Your task to perform on an android device: stop showing notifications on the lock screen Image 0: 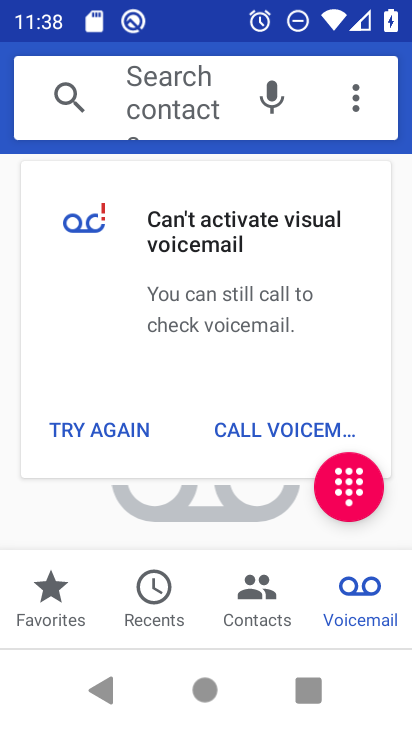
Step 0: press home button
Your task to perform on an android device: stop showing notifications on the lock screen Image 1: 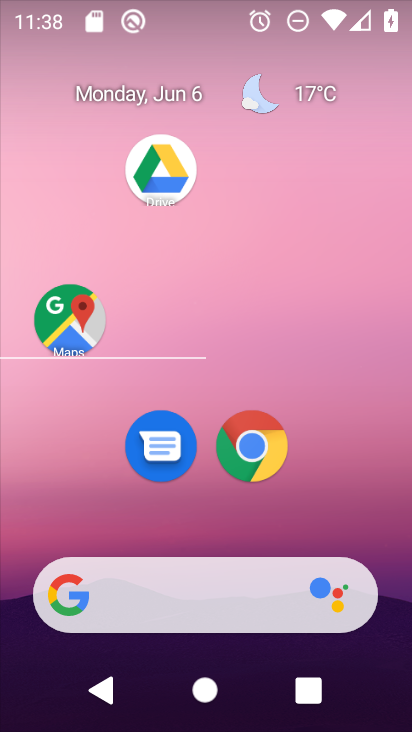
Step 1: drag from (201, 543) to (200, 93)
Your task to perform on an android device: stop showing notifications on the lock screen Image 2: 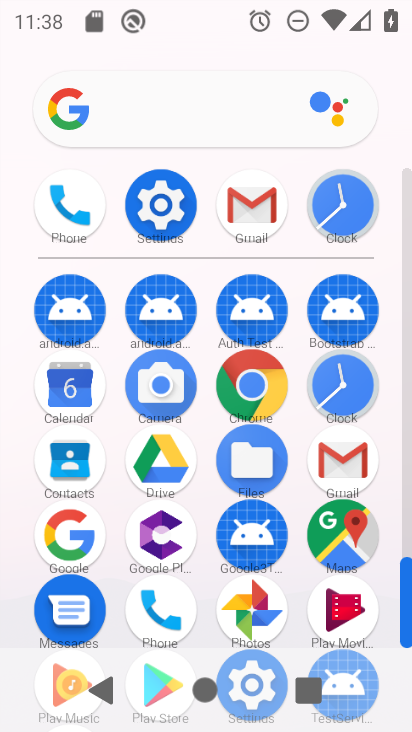
Step 2: click (179, 192)
Your task to perform on an android device: stop showing notifications on the lock screen Image 3: 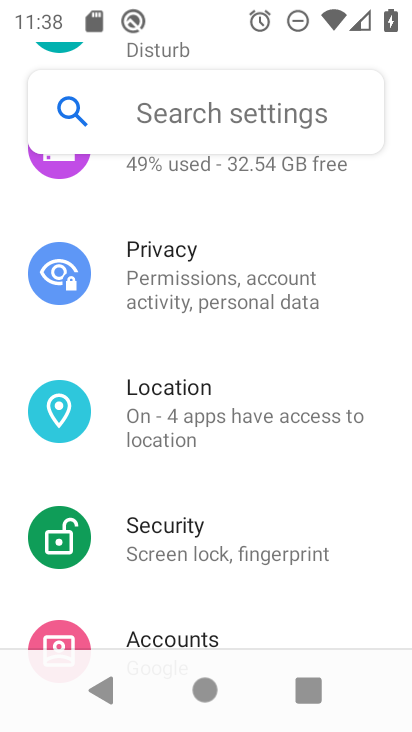
Step 3: drag from (180, 257) to (149, 551)
Your task to perform on an android device: stop showing notifications on the lock screen Image 4: 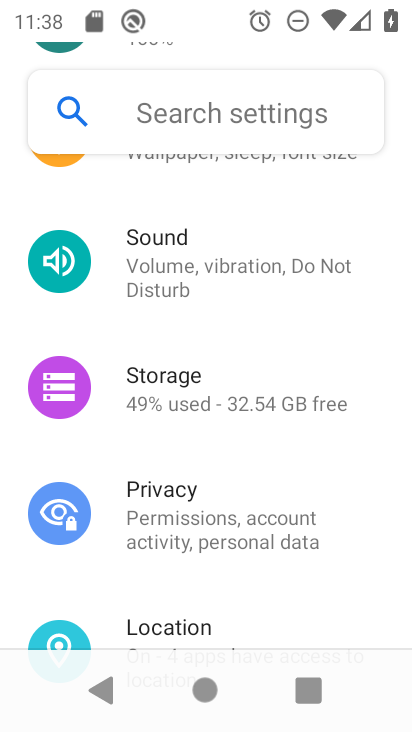
Step 4: drag from (147, 195) to (123, 576)
Your task to perform on an android device: stop showing notifications on the lock screen Image 5: 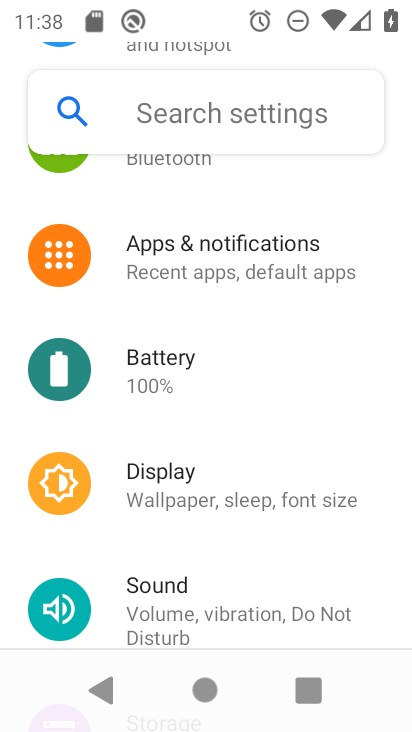
Step 5: click (202, 270)
Your task to perform on an android device: stop showing notifications on the lock screen Image 6: 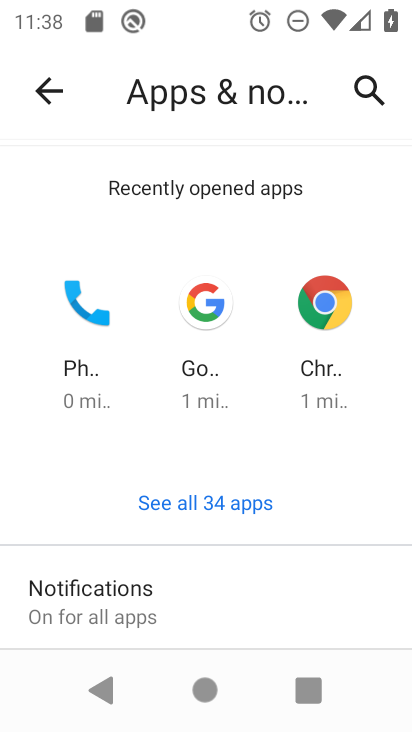
Step 6: click (206, 594)
Your task to perform on an android device: stop showing notifications on the lock screen Image 7: 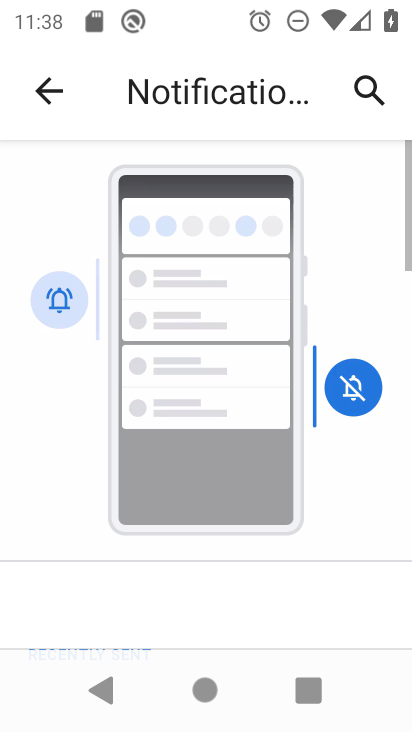
Step 7: drag from (206, 594) to (232, 293)
Your task to perform on an android device: stop showing notifications on the lock screen Image 8: 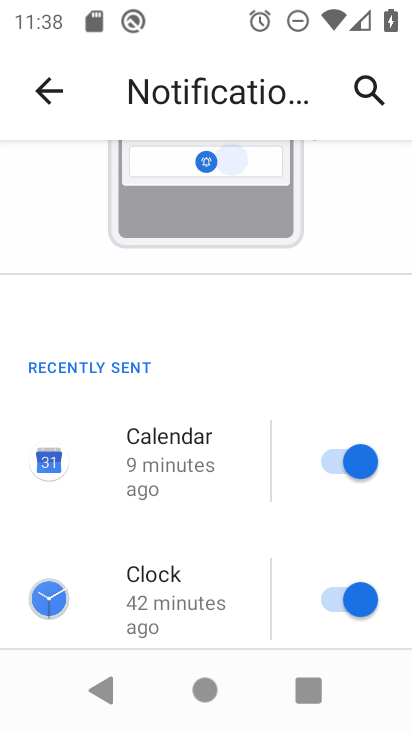
Step 8: drag from (187, 612) to (223, 185)
Your task to perform on an android device: stop showing notifications on the lock screen Image 9: 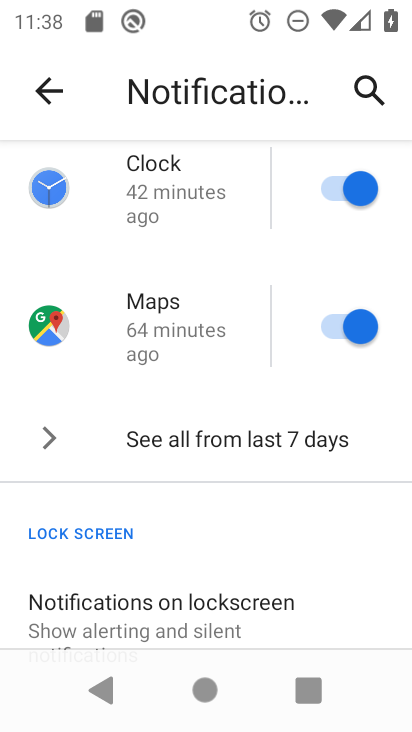
Step 9: click (231, 608)
Your task to perform on an android device: stop showing notifications on the lock screen Image 10: 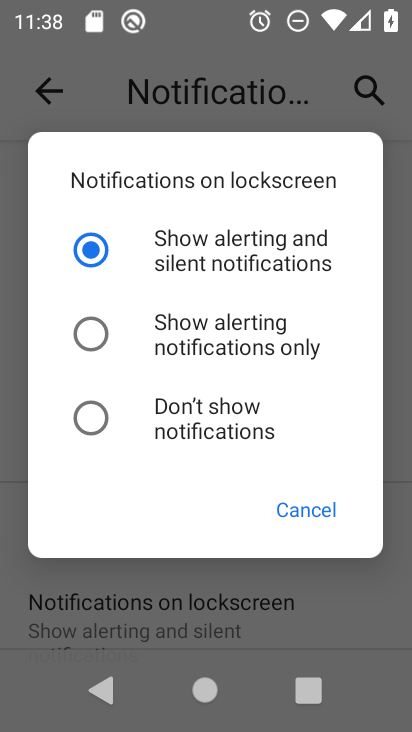
Step 10: click (257, 430)
Your task to perform on an android device: stop showing notifications on the lock screen Image 11: 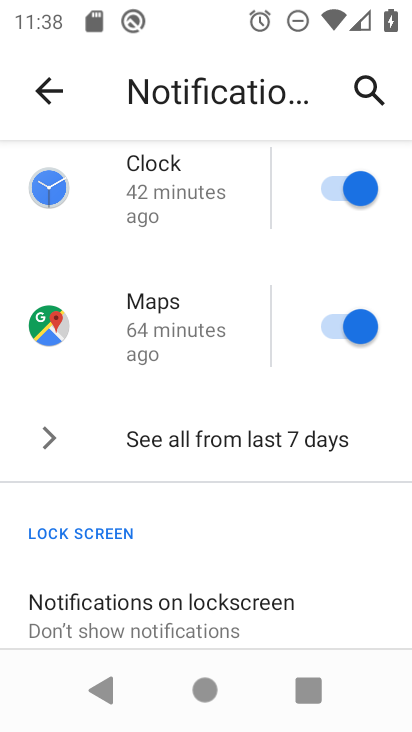
Step 11: click (141, 607)
Your task to perform on an android device: stop showing notifications on the lock screen Image 12: 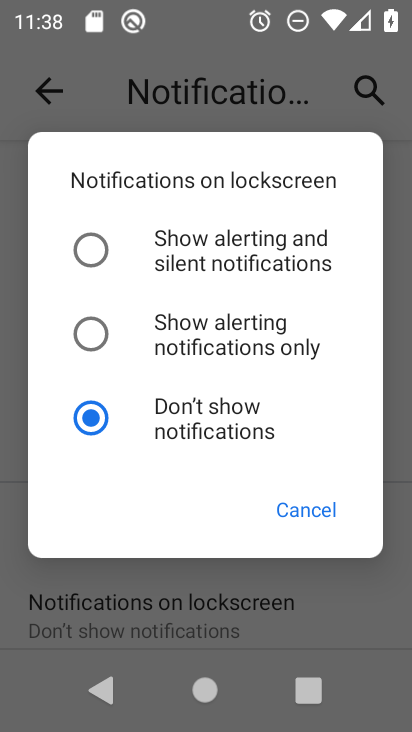
Step 12: task complete